Your task to perform on an android device: Search for seafood restaurants on Google Maps Image 0: 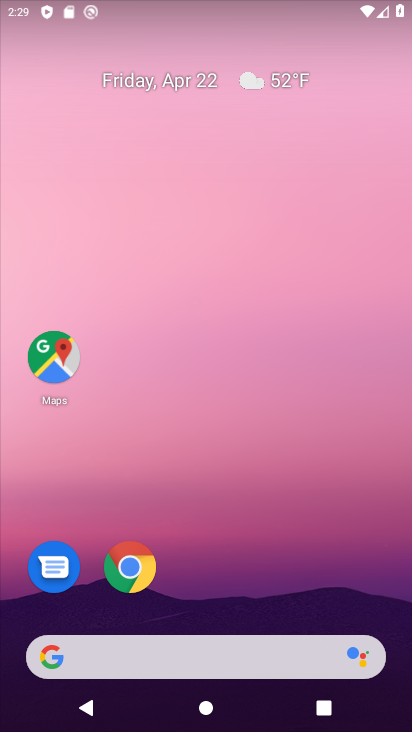
Step 0: click (51, 358)
Your task to perform on an android device: Search for seafood restaurants on Google Maps Image 1: 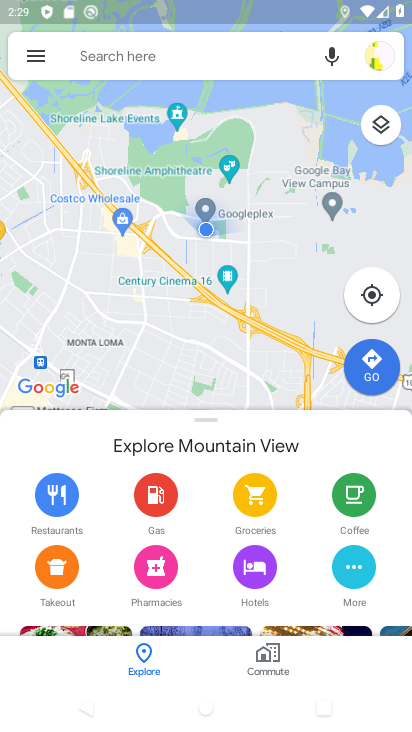
Step 1: click (207, 55)
Your task to perform on an android device: Search for seafood restaurants on Google Maps Image 2: 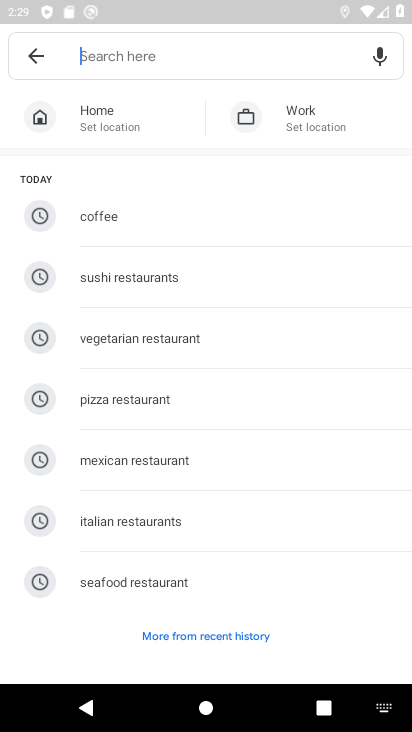
Step 2: click (227, 589)
Your task to perform on an android device: Search for seafood restaurants on Google Maps Image 3: 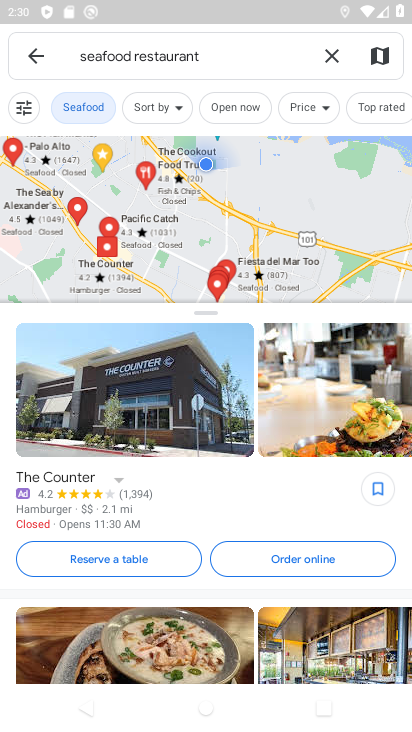
Step 3: task complete